Your task to perform on an android device: Search for vegetarian restaurants on Maps Image 0: 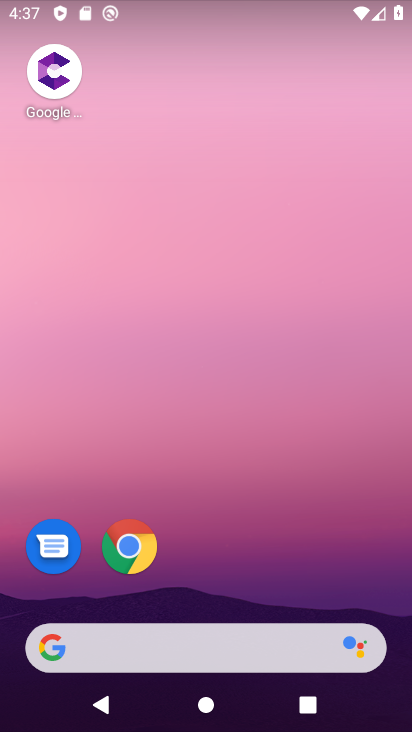
Step 0: drag from (190, 629) to (263, 209)
Your task to perform on an android device: Search for vegetarian restaurants on Maps Image 1: 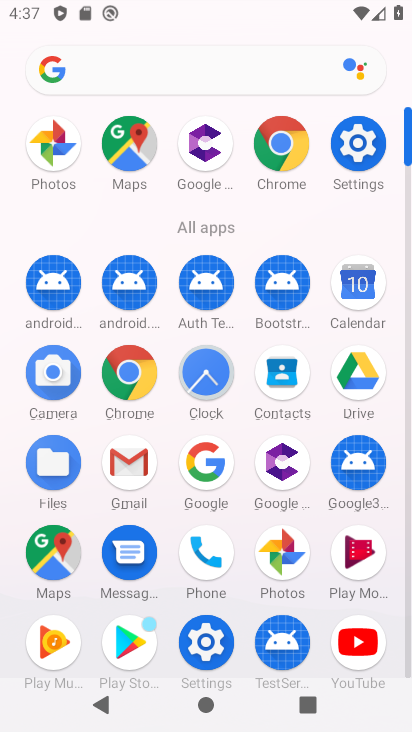
Step 1: click (50, 533)
Your task to perform on an android device: Search for vegetarian restaurants on Maps Image 2: 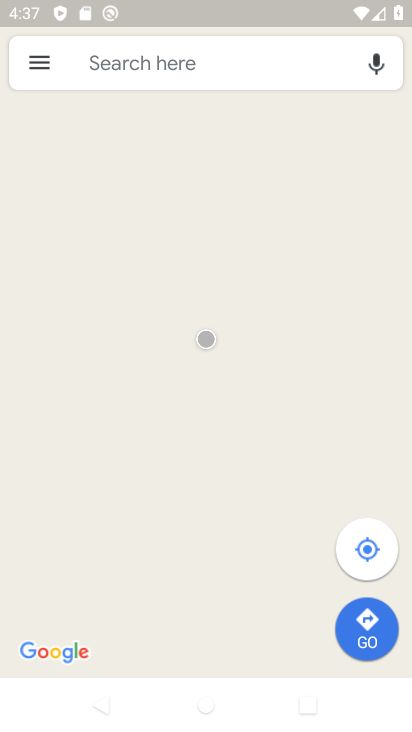
Step 2: click (207, 74)
Your task to perform on an android device: Search for vegetarian restaurants on Maps Image 3: 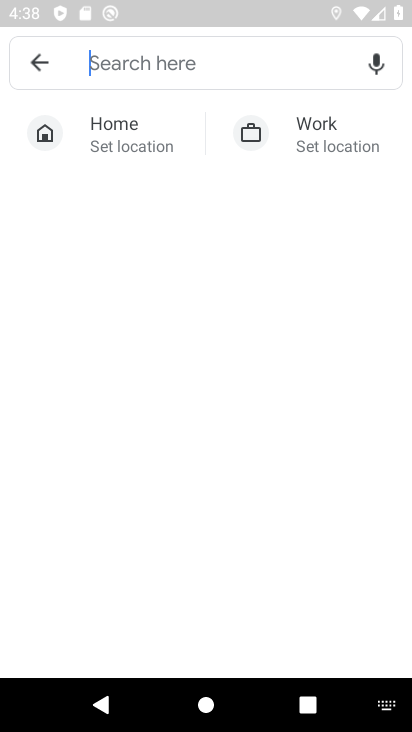
Step 3: type "vegetarian restaurants"
Your task to perform on an android device: Search for vegetarian restaurants on Maps Image 4: 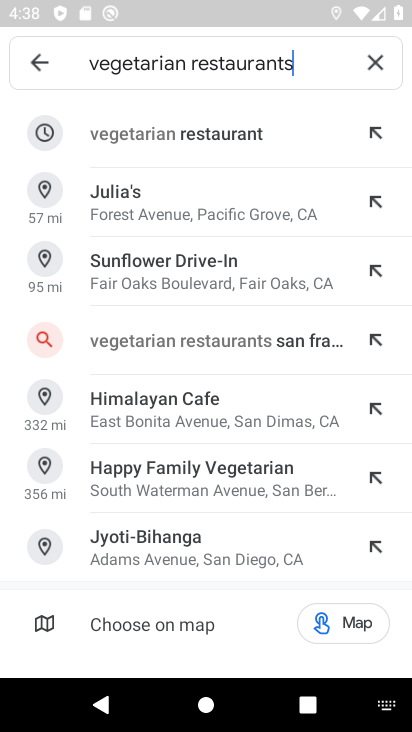
Step 4: click (217, 149)
Your task to perform on an android device: Search for vegetarian restaurants on Maps Image 5: 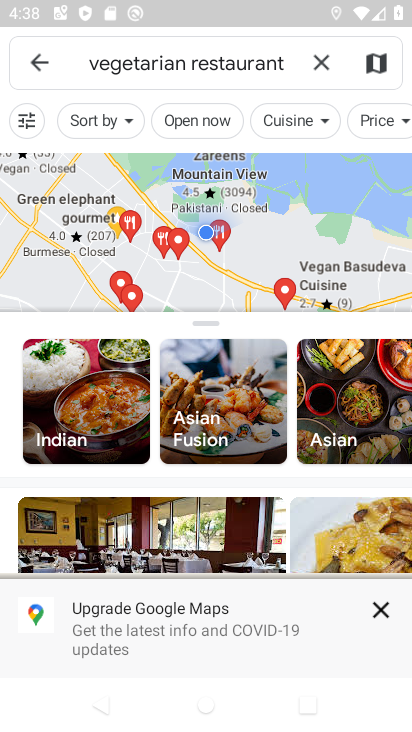
Step 5: click (397, 623)
Your task to perform on an android device: Search for vegetarian restaurants on Maps Image 6: 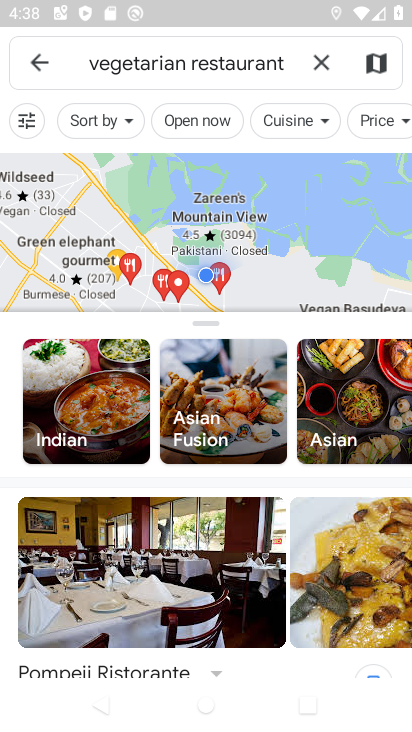
Step 6: task complete